Your task to perform on an android device: What is the recent news? Image 0: 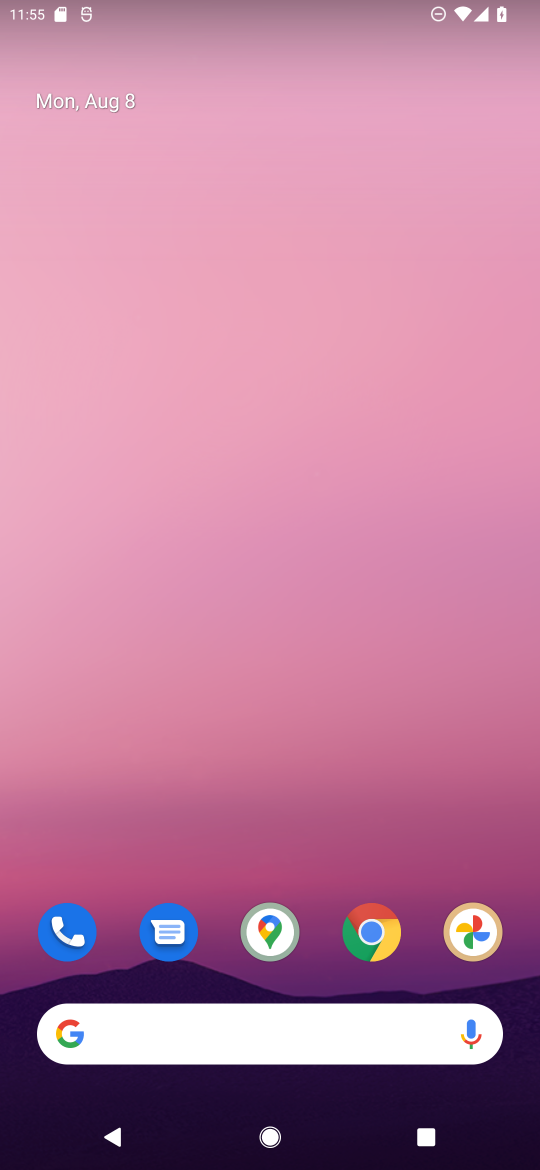
Step 0: click (376, 919)
Your task to perform on an android device: What is the recent news? Image 1: 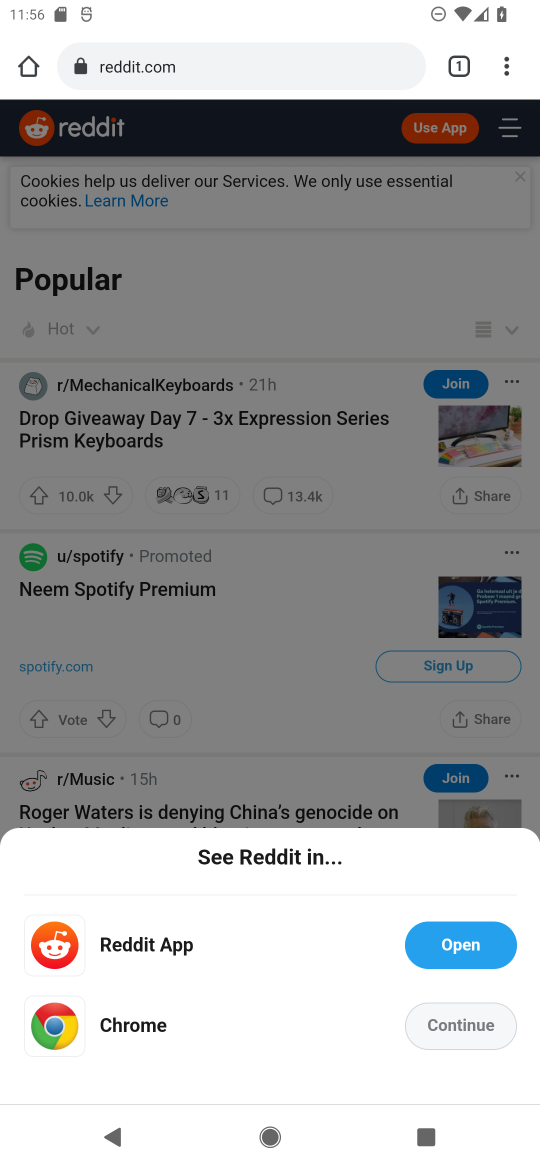
Step 1: click (29, 62)
Your task to perform on an android device: What is the recent news? Image 2: 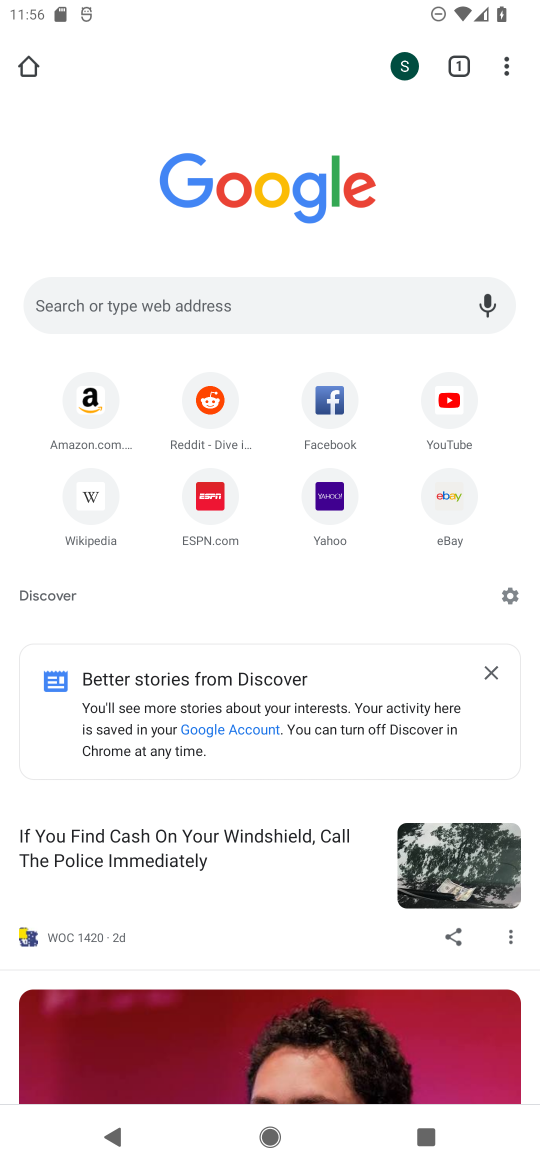
Step 2: task complete